Your task to perform on an android device: Show me popular videos on Youtube Image 0: 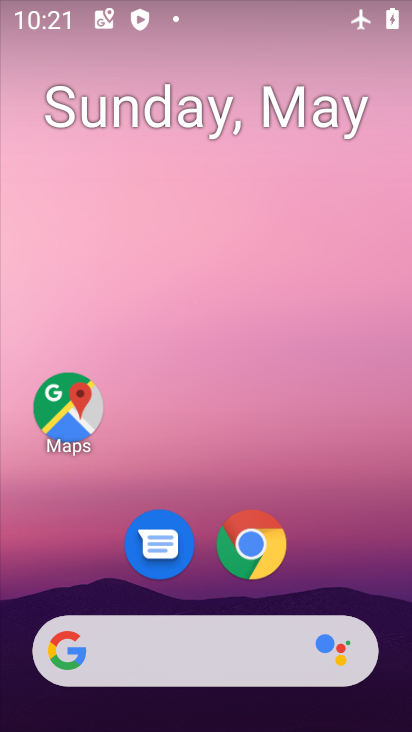
Step 0: drag from (312, 506) to (331, 314)
Your task to perform on an android device: Show me popular videos on Youtube Image 1: 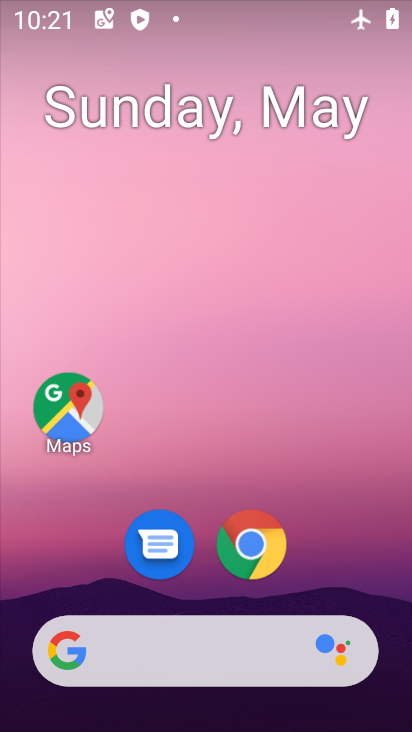
Step 1: drag from (331, 558) to (328, 301)
Your task to perform on an android device: Show me popular videos on Youtube Image 2: 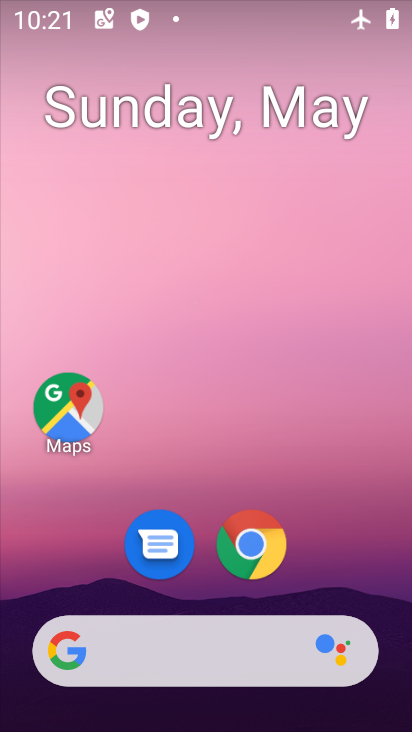
Step 2: drag from (306, 588) to (327, 306)
Your task to perform on an android device: Show me popular videos on Youtube Image 3: 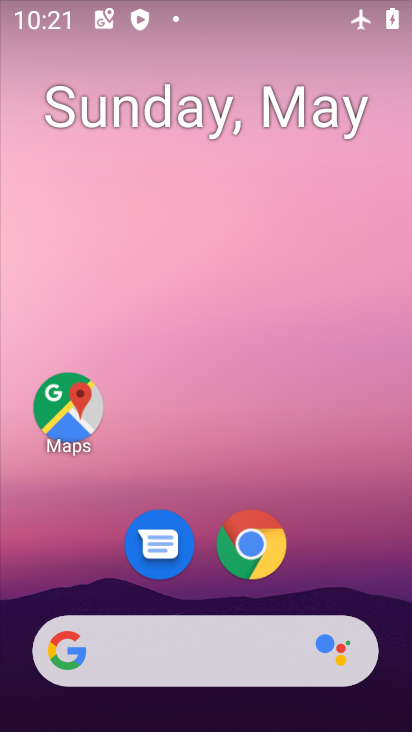
Step 3: drag from (306, 579) to (325, 291)
Your task to perform on an android device: Show me popular videos on Youtube Image 4: 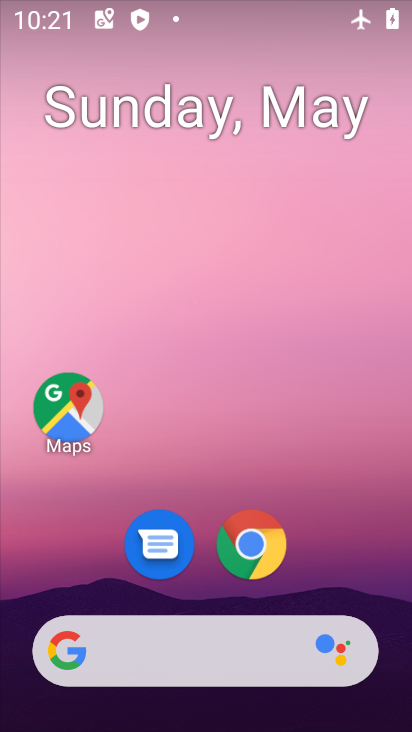
Step 4: drag from (250, 671) to (241, 334)
Your task to perform on an android device: Show me popular videos on Youtube Image 5: 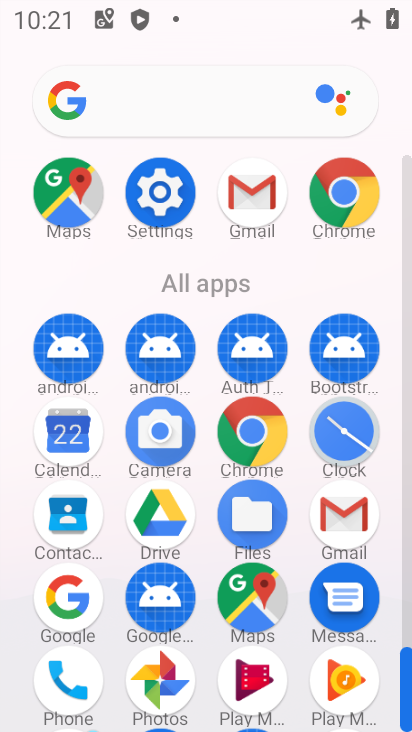
Step 5: drag from (263, 672) to (266, 185)
Your task to perform on an android device: Show me popular videos on Youtube Image 6: 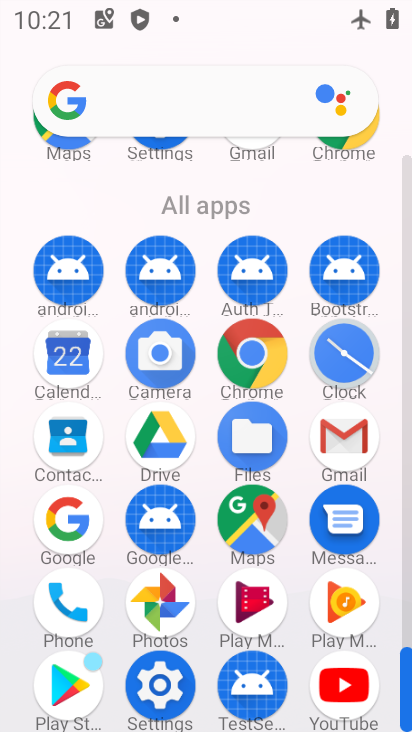
Step 6: click (335, 665)
Your task to perform on an android device: Show me popular videos on Youtube Image 7: 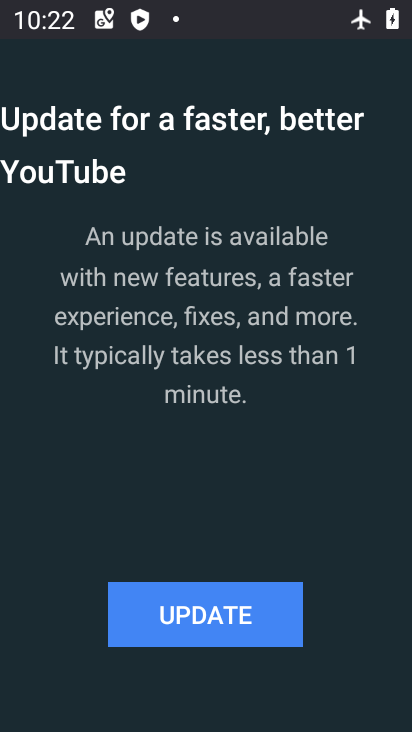
Step 7: task complete